Your task to perform on an android device: change the clock style Image 0: 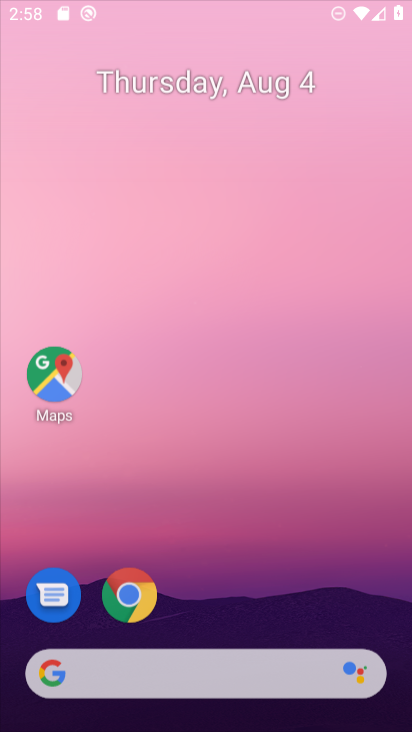
Step 0: press home button
Your task to perform on an android device: change the clock style Image 1: 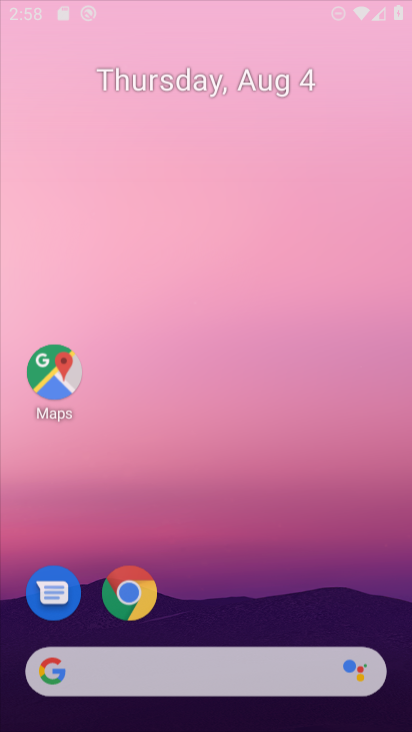
Step 1: click (143, 666)
Your task to perform on an android device: change the clock style Image 2: 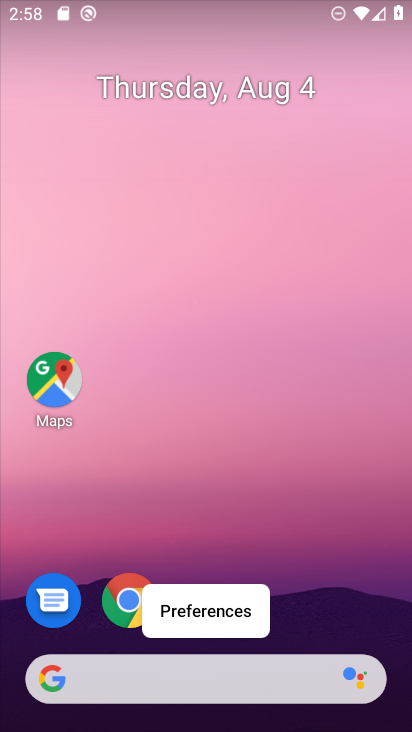
Step 2: drag from (140, 675) to (304, 64)
Your task to perform on an android device: change the clock style Image 3: 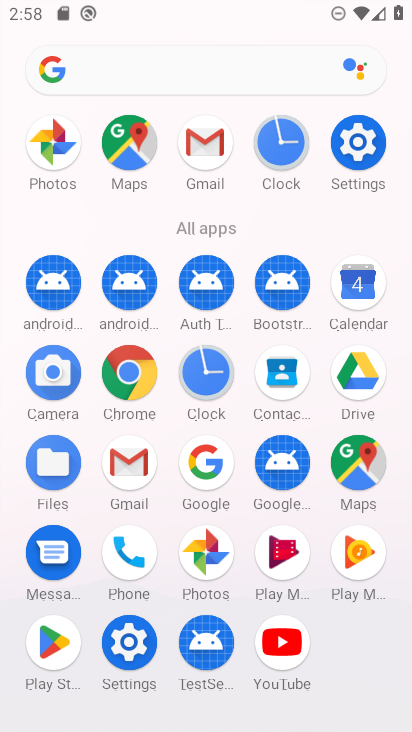
Step 3: click (279, 142)
Your task to perform on an android device: change the clock style Image 4: 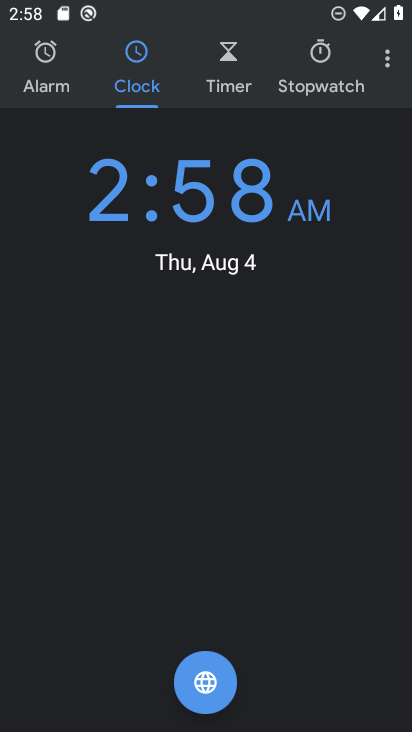
Step 4: click (389, 58)
Your task to perform on an android device: change the clock style Image 5: 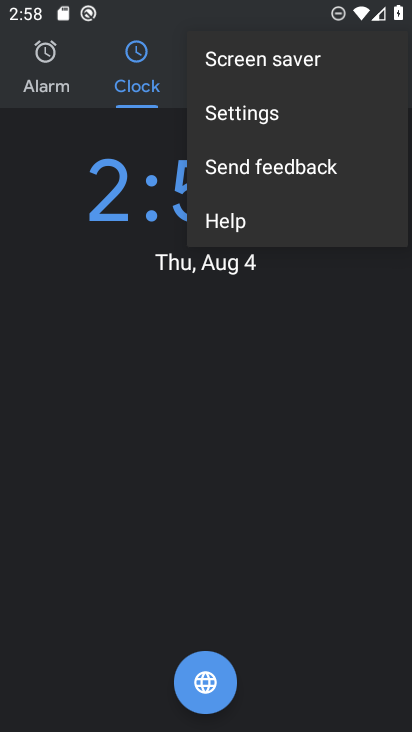
Step 5: click (264, 118)
Your task to perform on an android device: change the clock style Image 6: 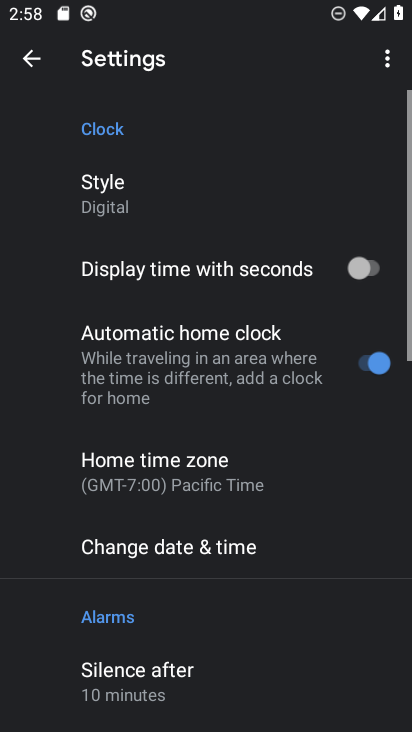
Step 6: click (116, 194)
Your task to perform on an android device: change the clock style Image 7: 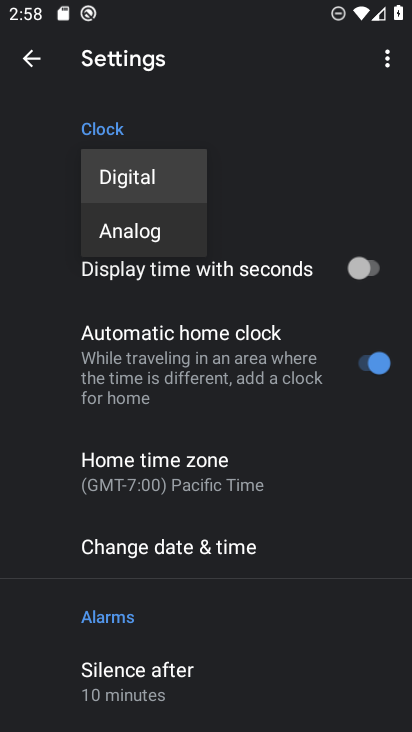
Step 7: click (152, 230)
Your task to perform on an android device: change the clock style Image 8: 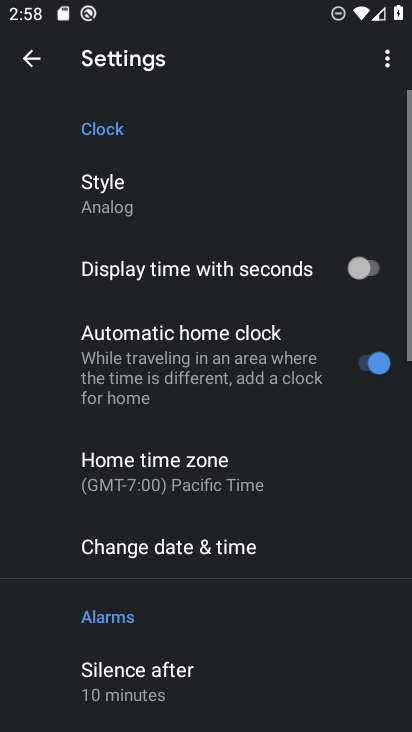
Step 8: task complete